Your task to perform on an android device: toggle location history Image 0: 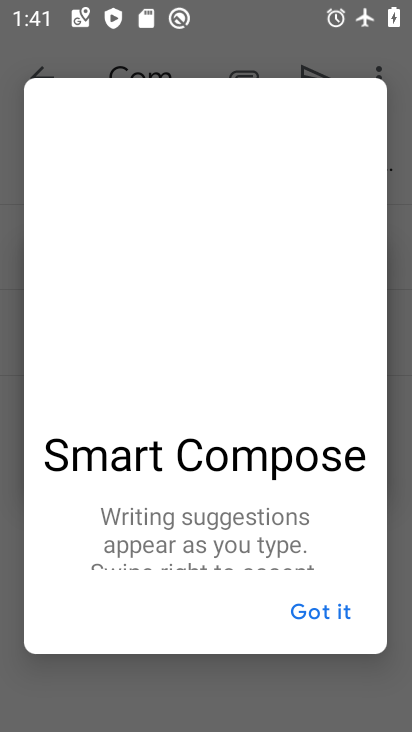
Step 0: click (328, 612)
Your task to perform on an android device: toggle location history Image 1: 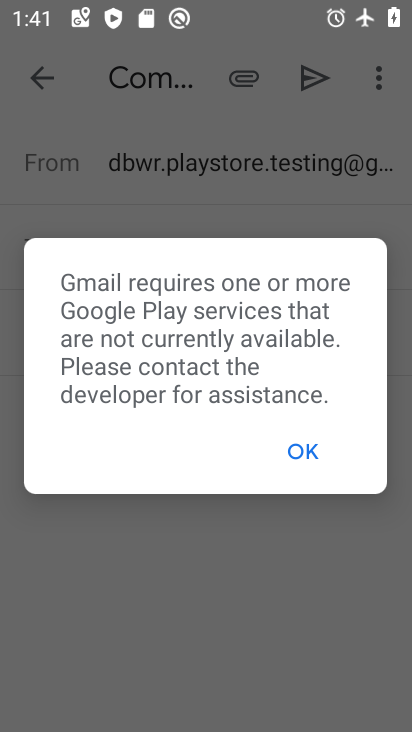
Step 1: press home button
Your task to perform on an android device: toggle location history Image 2: 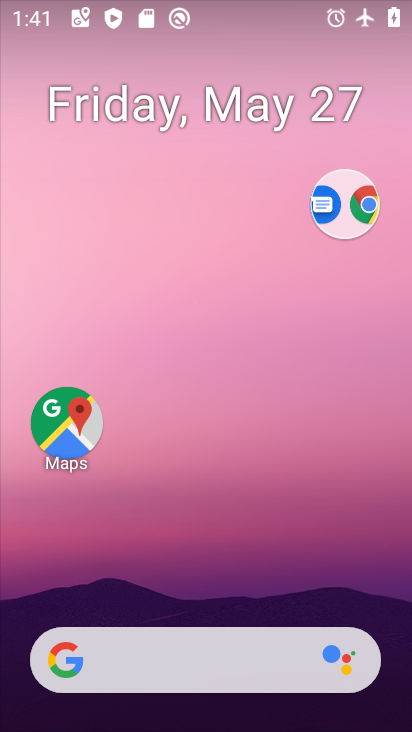
Step 2: drag from (204, 595) to (191, 234)
Your task to perform on an android device: toggle location history Image 3: 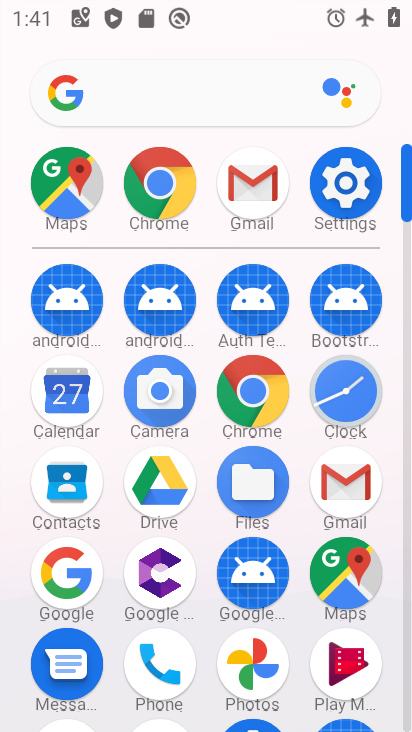
Step 3: click (322, 211)
Your task to perform on an android device: toggle location history Image 4: 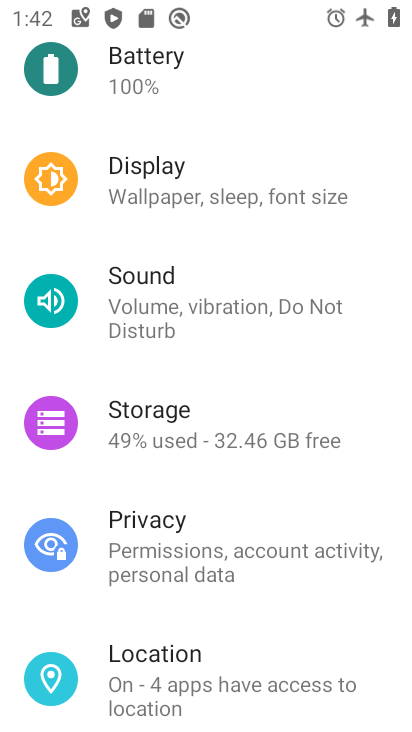
Step 4: click (191, 662)
Your task to perform on an android device: toggle location history Image 5: 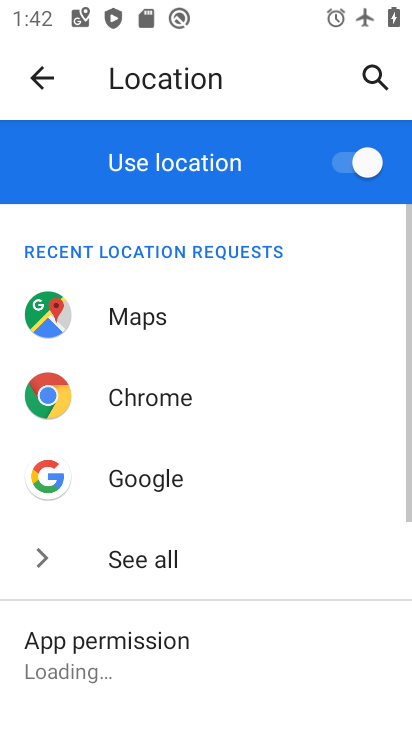
Step 5: drag from (169, 594) to (175, 342)
Your task to perform on an android device: toggle location history Image 6: 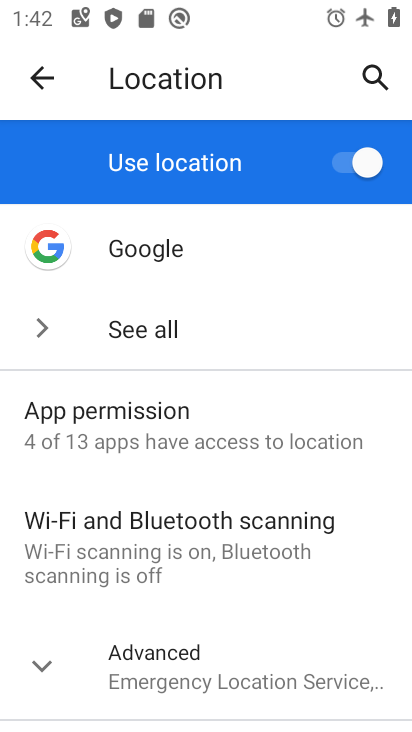
Step 6: click (156, 666)
Your task to perform on an android device: toggle location history Image 7: 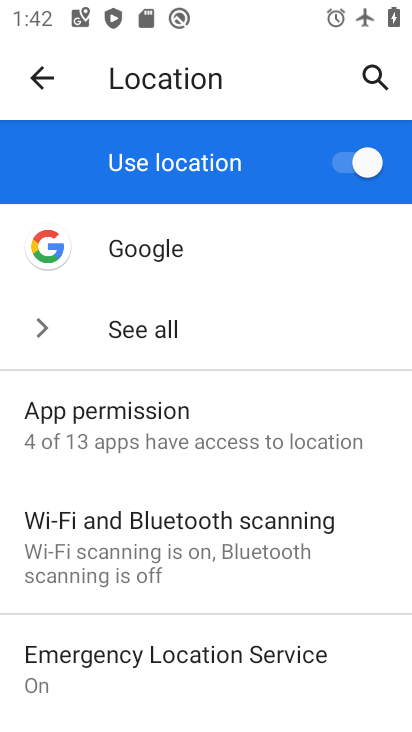
Step 7: drag from (159, 586) to (201, 345)
Your task to perform on an android device: toggle location history Image 8: 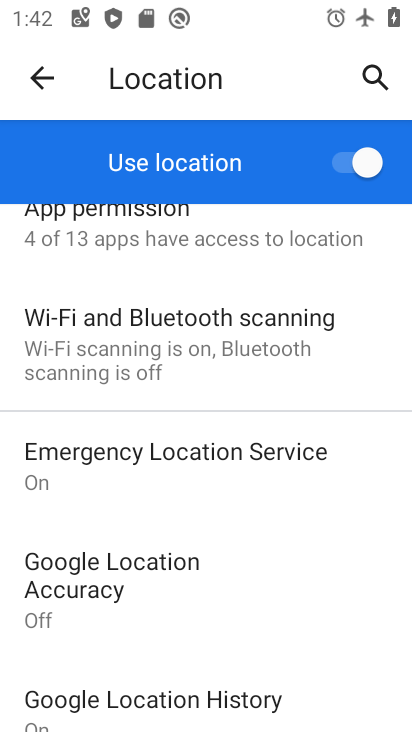
Step 8: click (210, 701)
Your task to perform on an android device: toggle location history Image 9: 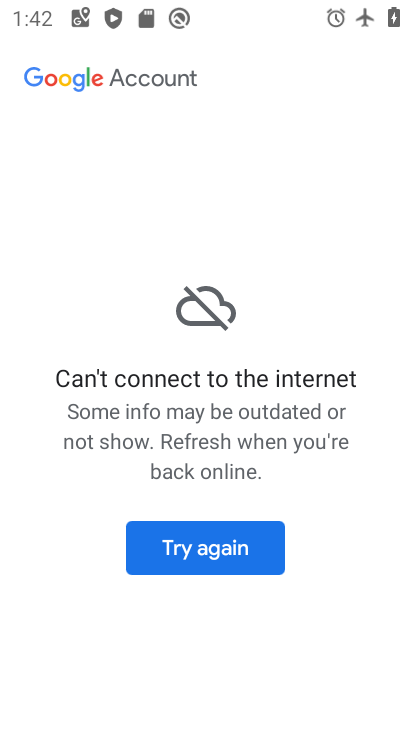
Step 9: task complete